Your task to perform on an android device: Open Youtube and go to "Your channel" Image 0: 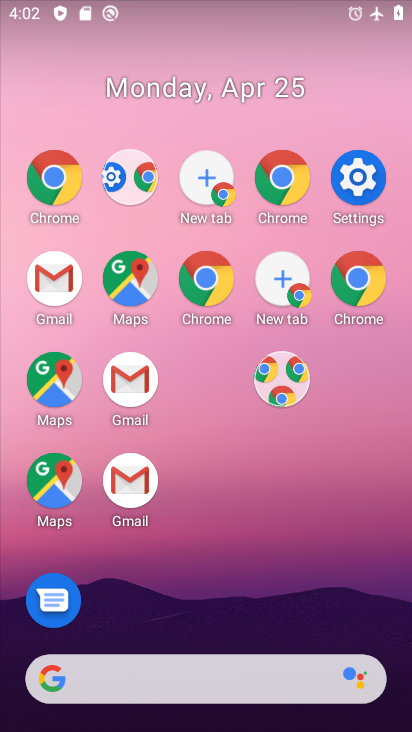
Step 0: drag from (299, 608) to (179, 86)
Your task to perform on an android device: Open Youtube and go to "Your channel" Image 1: 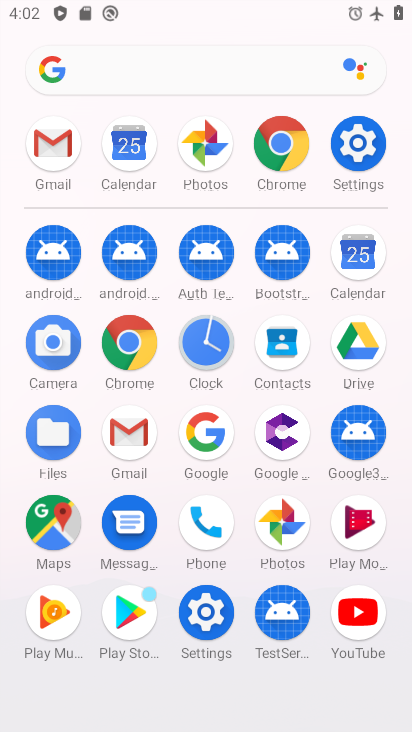
Step 1: click (351, 615)
Your task to perform on an android device: Open Youtube and go to "Your channel" Image 2: 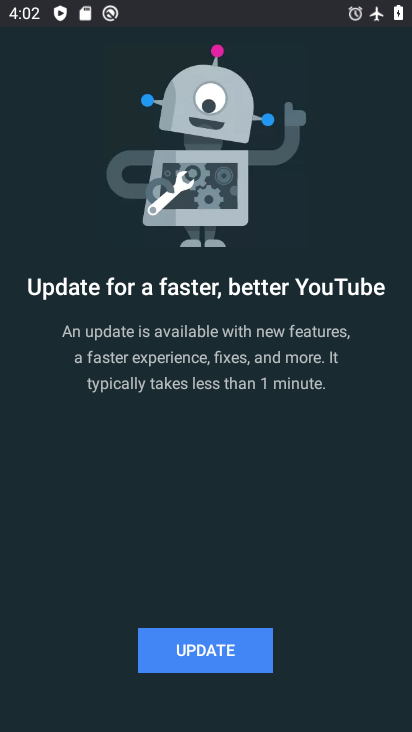
Step 2: press home button
Your task to perform on an android device: Open Youtube and go to "Your channel" Image 3: 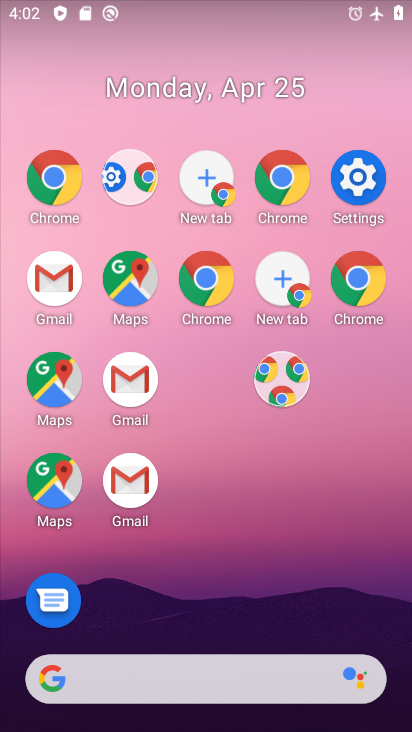
Step 3: drag from (249, 445) to (173, 3)
Your task to perform on an android device: Open Youtube and go to "Your channel" Image 4: 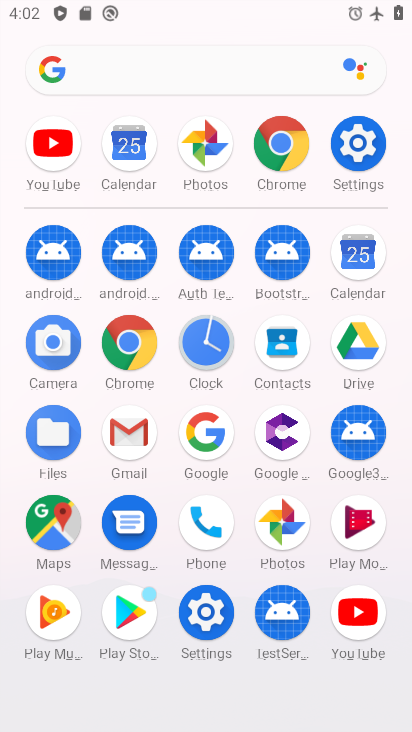
Step 4: click (352, 605)
Your task to perform on an android device: Open Youtube and go to "Your channel" Image 5: 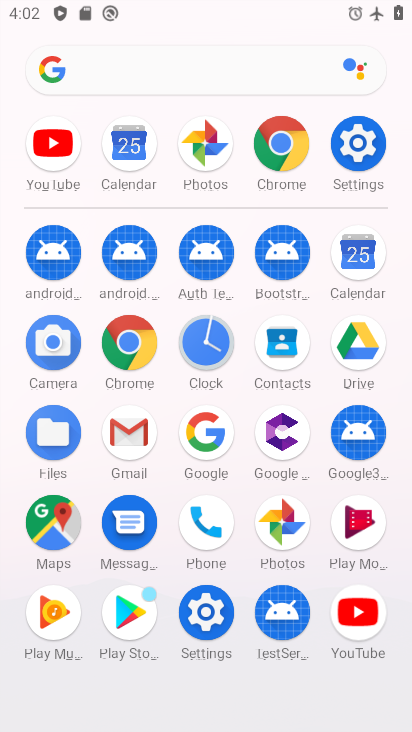
Step 5: click (352, 605)
Your task to perform on an android device: Open Youtube and go to "Your channel" Image 6: 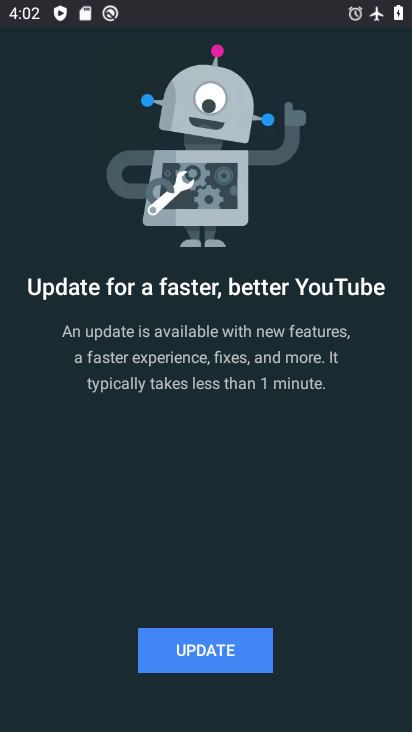
Step 6: click (352, 605)
Your task to perform on an android device: Open Youtube and go to "Your channel" Image 7: 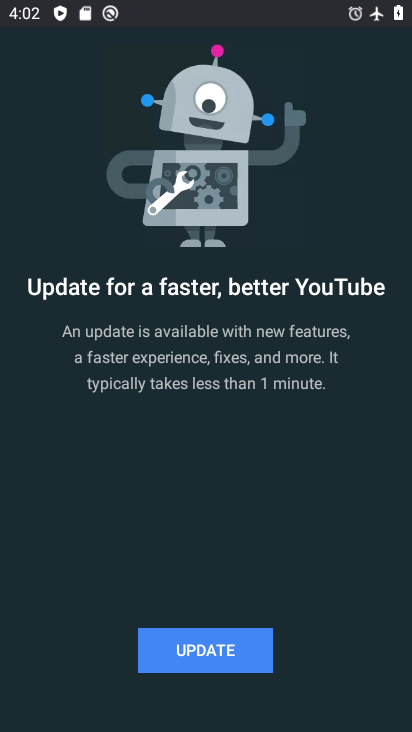
Step 7: click (209, 644)
Your task to perform on an android device: Open Youtube and go to "Your channel" Image 8: 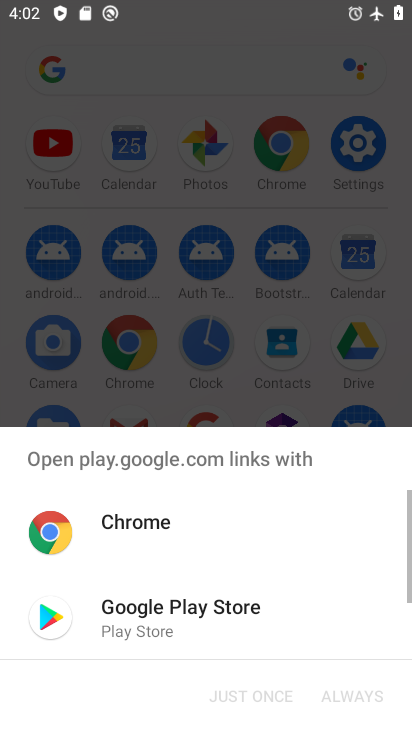
Step 8: click (127, 624)
Your task to perform on an android device: Open Youtube and go to "Your channel" Image 9: 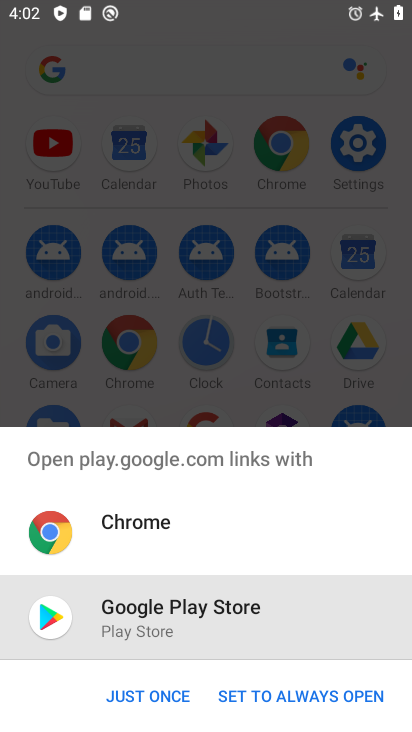
Step 9: click (166, 685)
Your task to perform on an android device: Open Youtube and go to "Your channel" Image 10: 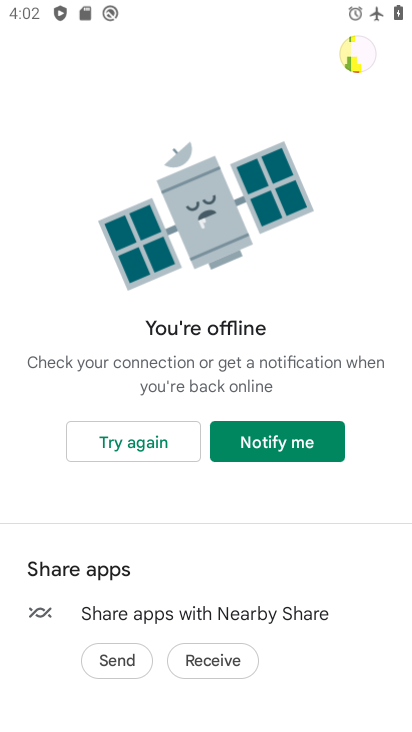
Step 10: drag from (180, 9) to (141, 649)
Your task to perform on an android device: Open Youtube and go to "Your channel" Image 11: 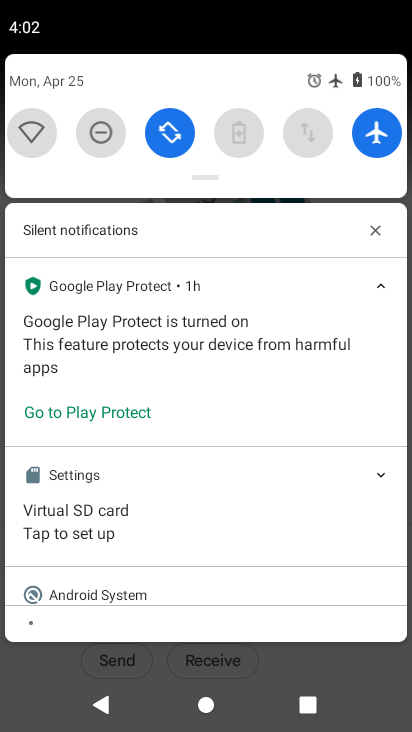
Step 11: click (371, 133)
Your task to perform on an android device: Open Youtube and go to "Your channel" Image 12: 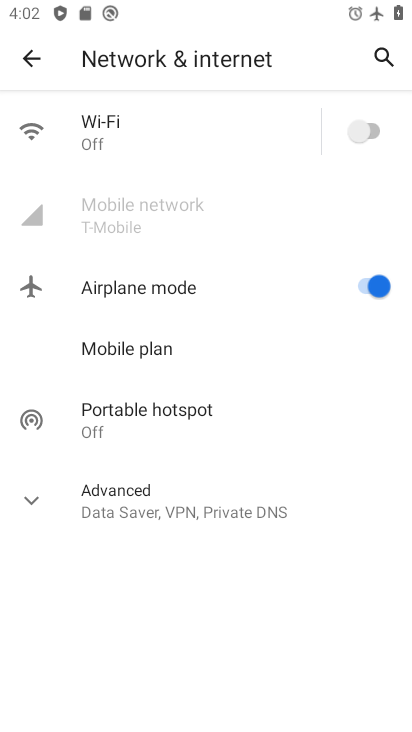
Step 12: click (372, 292)
Your task to perform on an android device: Open Youtube and go to "Your channel" Image 13: 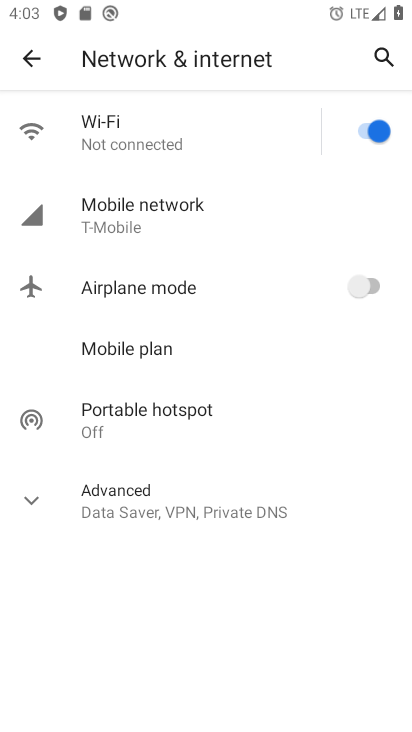
Step 13: click (25, 54)
Your task to perform on an android device: Open Youtube and go to "Your channel" Image 14: 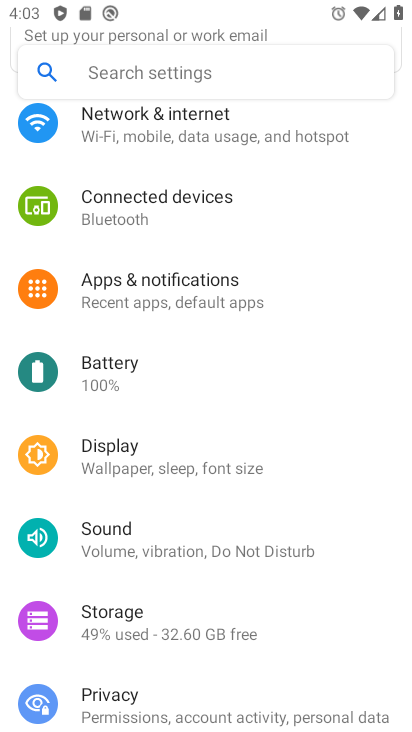
Step 14: press home button
Your task to perform on an android device: Open Youtube and go to "Your channel" Image 15: 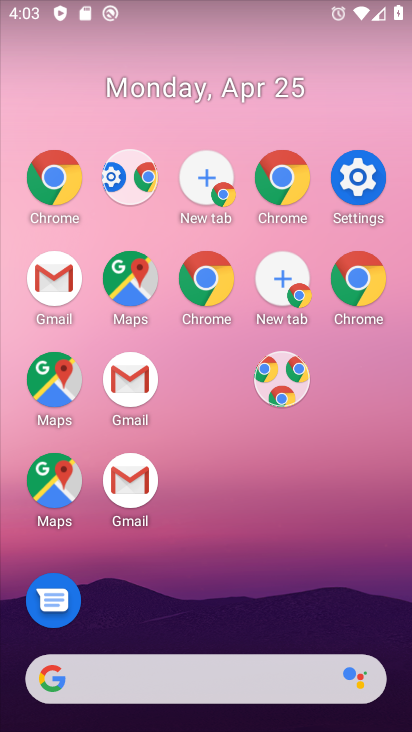
Step 15: drag from (275, 591) to (123, 134)
Your task to perform on an android device: Open Youtube and go to "Your channel" Image 16: 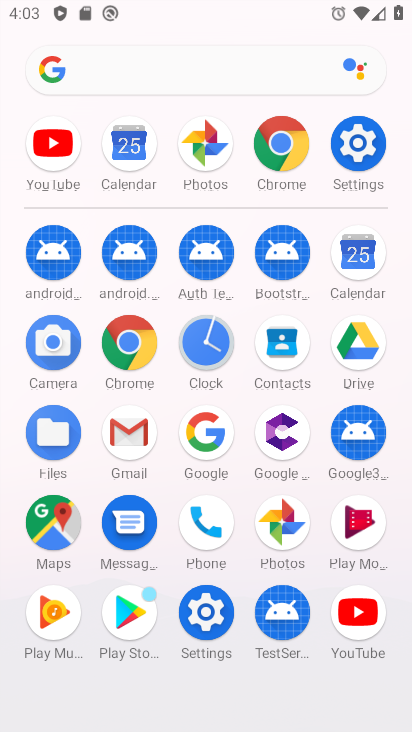
Step 16: click (362, 601)
Your task to perform on an android device: Open Youtube and go to "Your channel" Image 17: 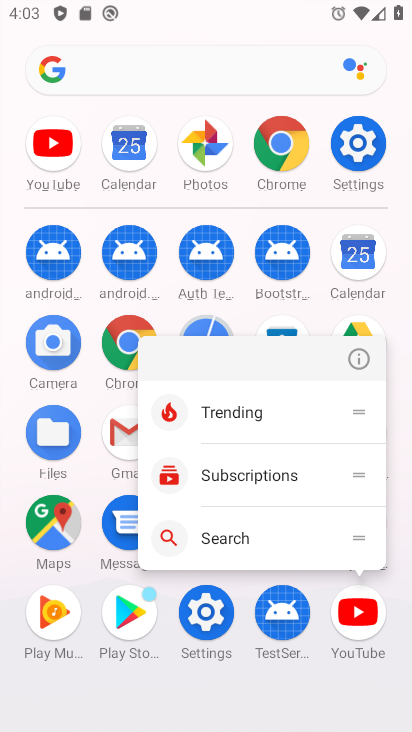
Step 17: click (363, 600)
Your task to perform on an android device: Open Youtube and go to "Your channel" Image 18: 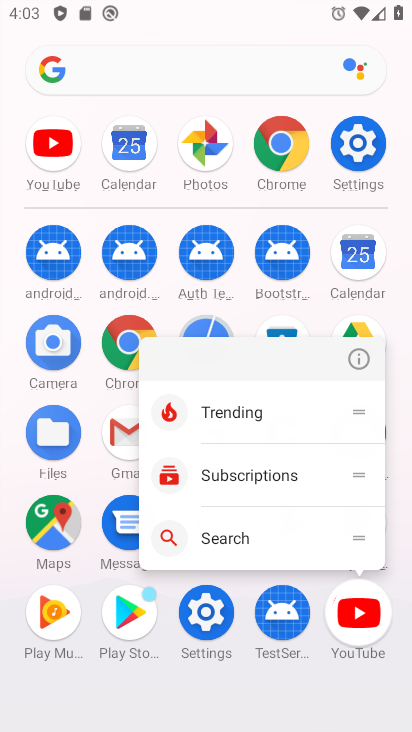
Step 18: click (363, 600)
Your task to perform on an android device: Open Youtube and go to "Your channel" Image 19: 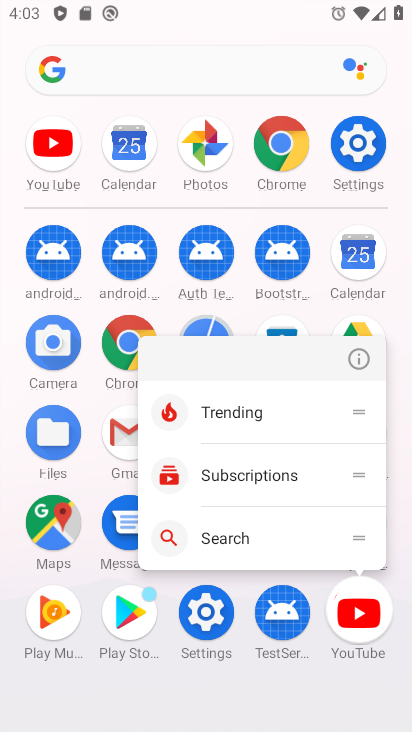
Step 19: click (364, 595)
Your task to perform on an android device: Open Youtube and go to "Your channel" Image 20: 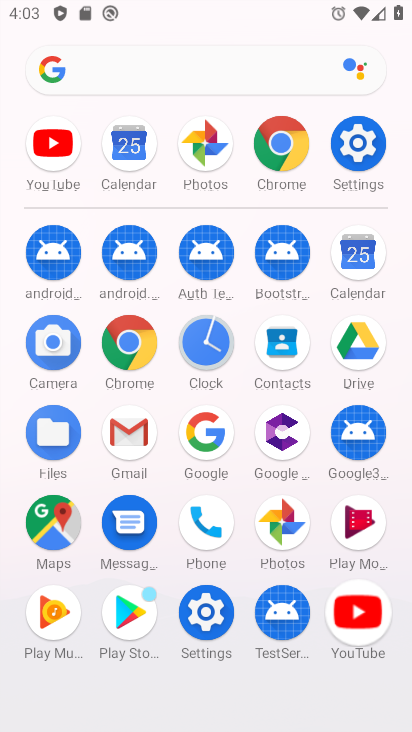
Step 20: click (363, 586)
Your task to perform on an android device: Open Youtube and go to "Your channel" Image 21: 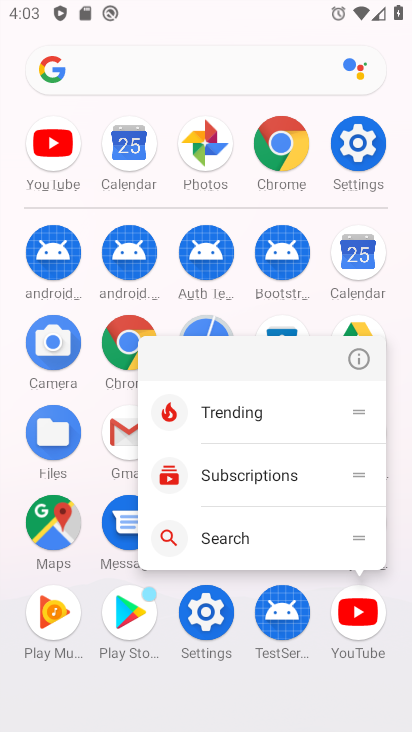
Step 21: click (358, 603)
Your task to perform on an android device: Open Youtube and go to "Your channel" Image 22: 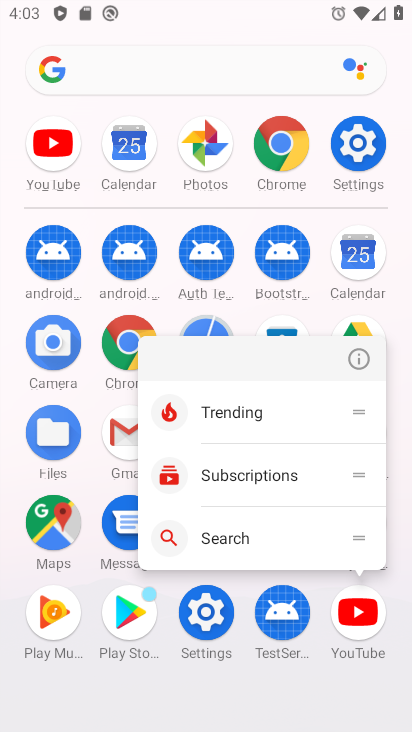
Step 22: click (57, 144)
Your task to perform on an android device: Open Youtube and go to "Your channel" Image 23: 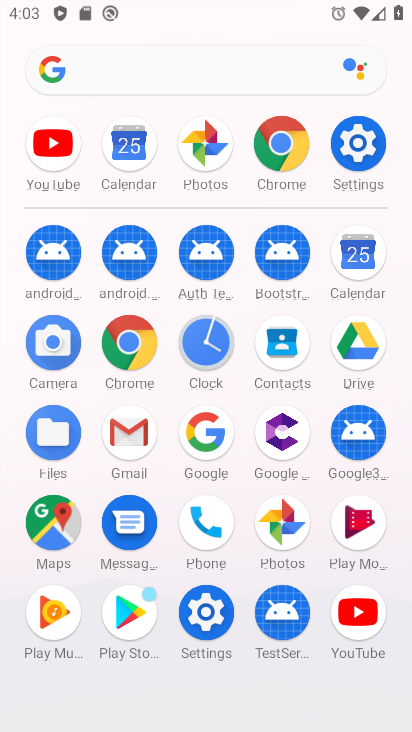
Step 23: click (53, 155)
Your task to perform on an android device: Open Youtube and go to "Your channel" Image 24: 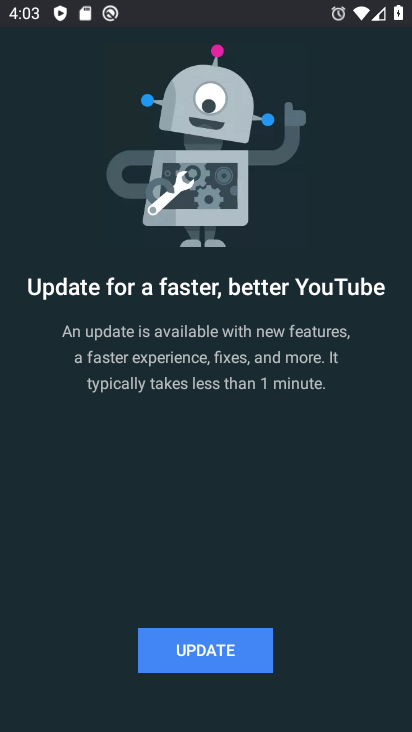
Step 24: click (51, 141)
Your task to perform on an android device: Open Youtube and go to "Your channel" Image 25: 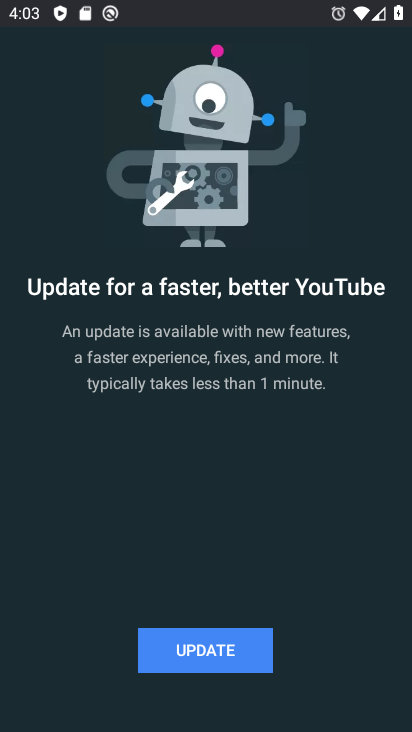
Step 25: click (189, 650)
Your task to perform on an android device: Open Youtube and go to "Your channel" Image 26: 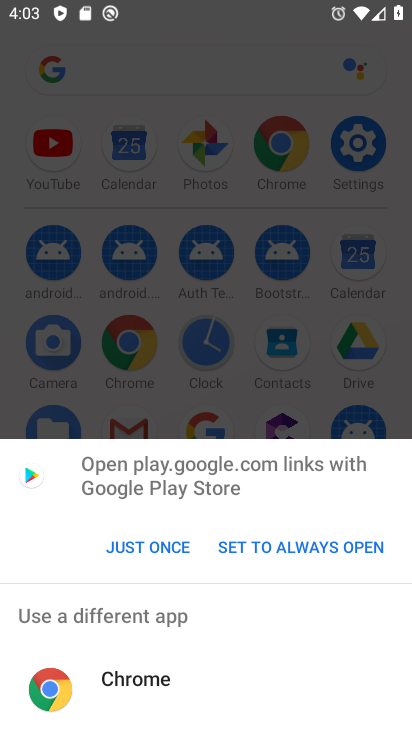
Step 26: click (110, 682)
Your task to perform on an android device: Open Youtube and go to "Your channel" Image 27: 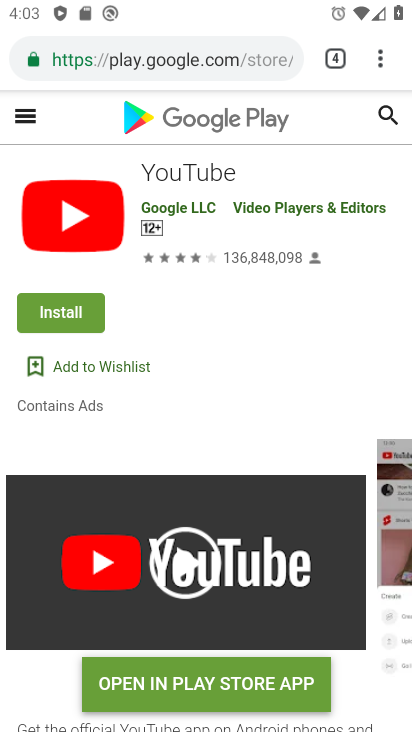
Step 27: click (182, 560)
Your task to perform on an android device: Open Youtube and go to "Your channel" Image 28: 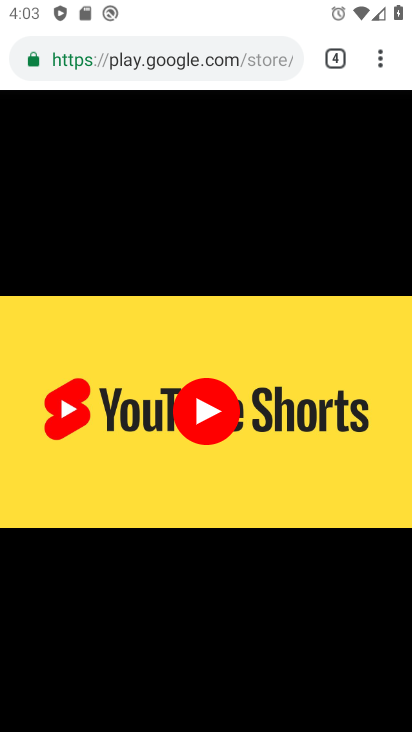
Step 28: click (195, 403)
Your task to perform on an android device: Open Youtube and go to "Your channel" Image 29: 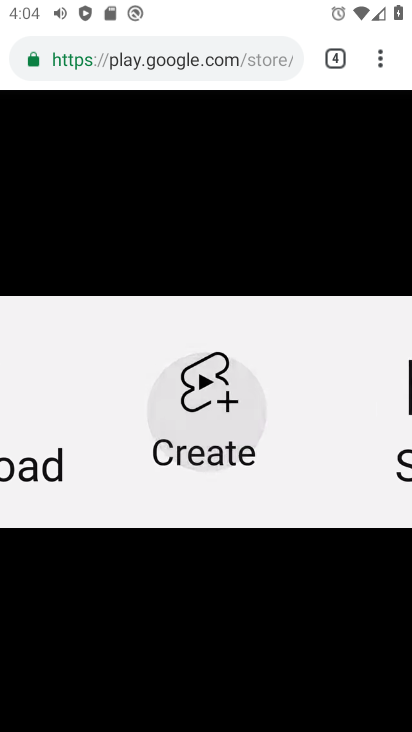
Step 29: task complete